Your task to perform on an android device: Open Maps and search for coffee Image 0: 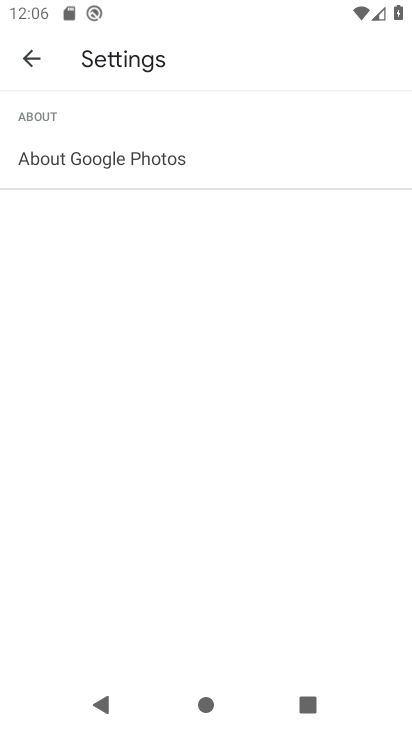
Step 0: press home button
Your task to perform on an android device: Open Maps and search for coffee Image 1: 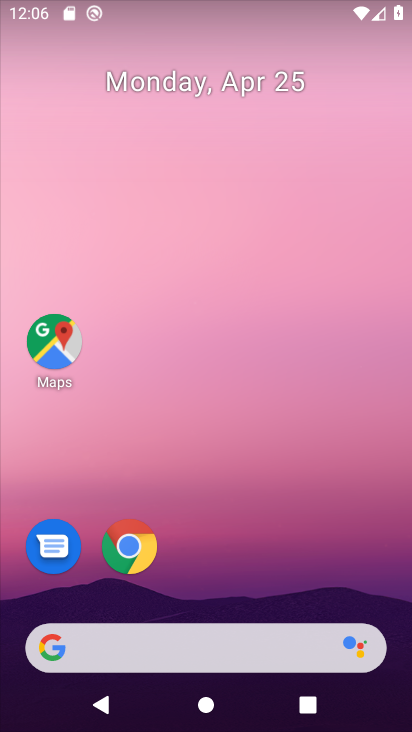
Step 1: drag from (215, 317) to (203, 64)
Your task to perform on an android device: Open Maps and search for coffee Image 2: 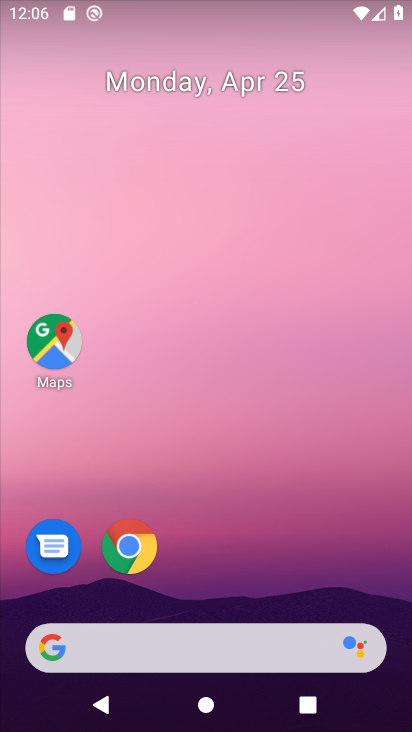
Step 2: click (39, 361)
Your task to perform on an android device: Open Maps and search for coffee Image 3: 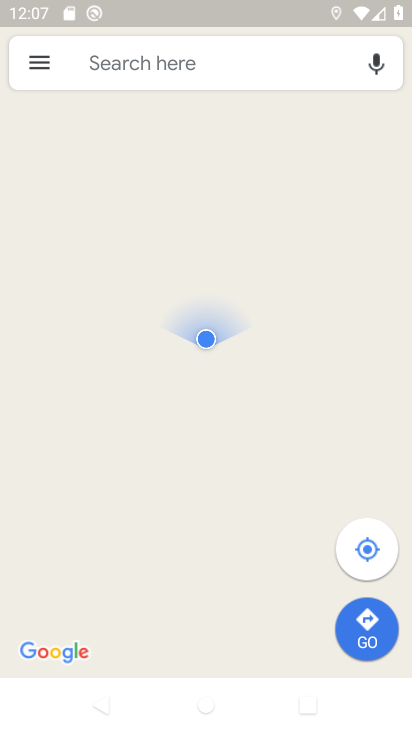
Step 3: click (268, 63)
Your task to perform on an android device: Open Maps and search for coffee Image 4: 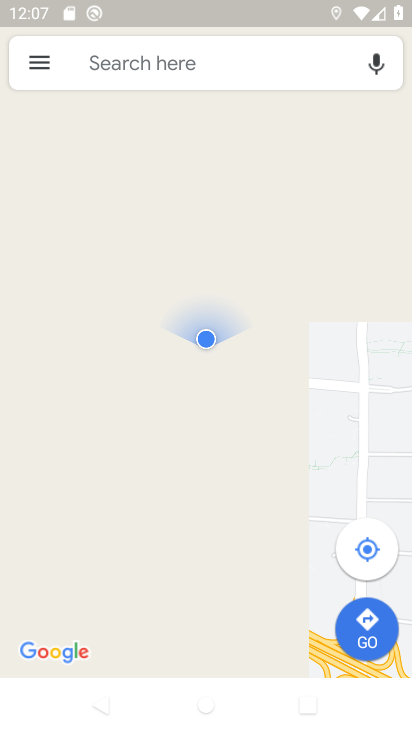
Step 4: click (268, 63)
Your task to perform on an android device: Open Maps and search for coffee Image 5: 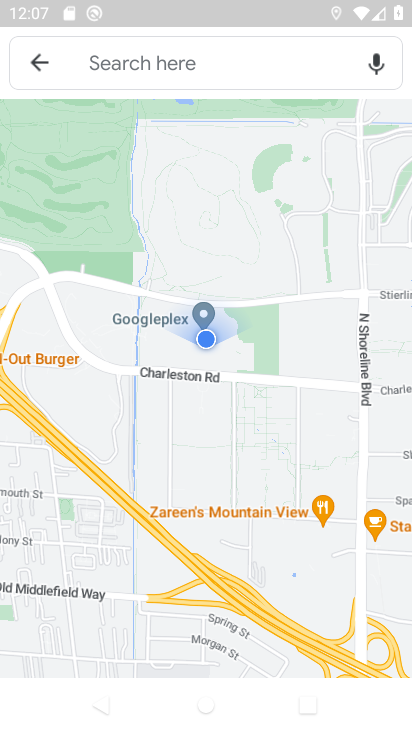
Step 5: click (268, 63)
Your task to perform on an android device: Open Maps and search for coffee Image 6: 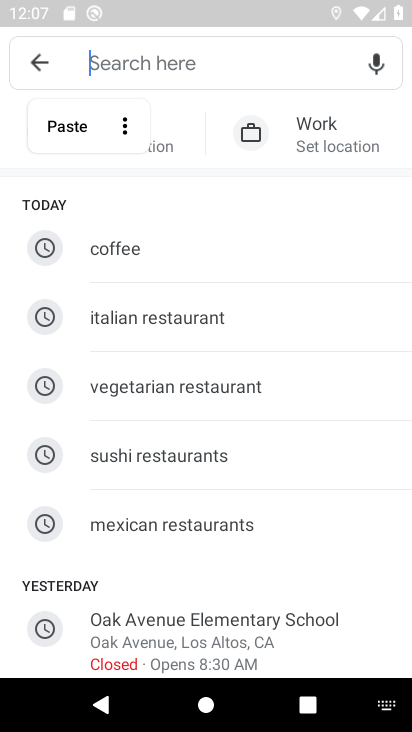
Step 6: type "coffee"
Your task to perform on an android device: Open Maps and search for coffee Image 7: 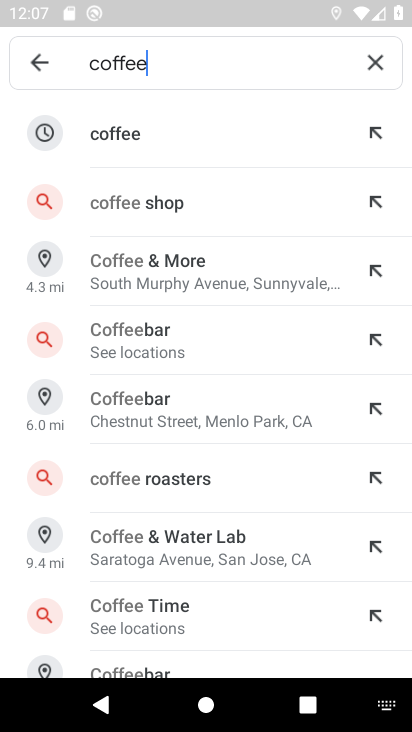
Step 7: click (236, 128)
Your task to perform on an android device: Open Maps and search for coffee Image 8: 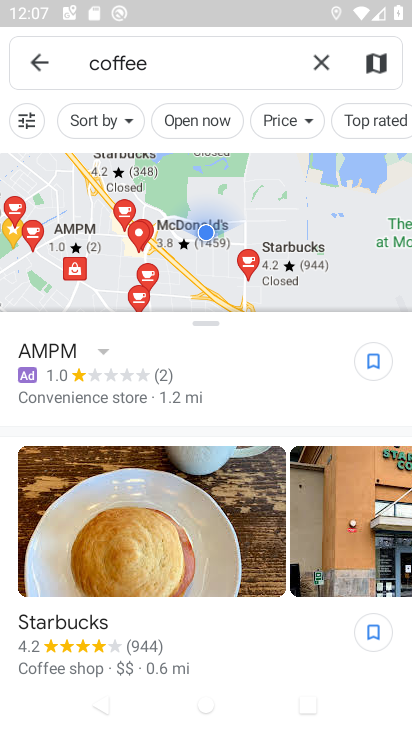
Step 8: task complete